Your task to perform on an android device: toggle notification dots Image 0: 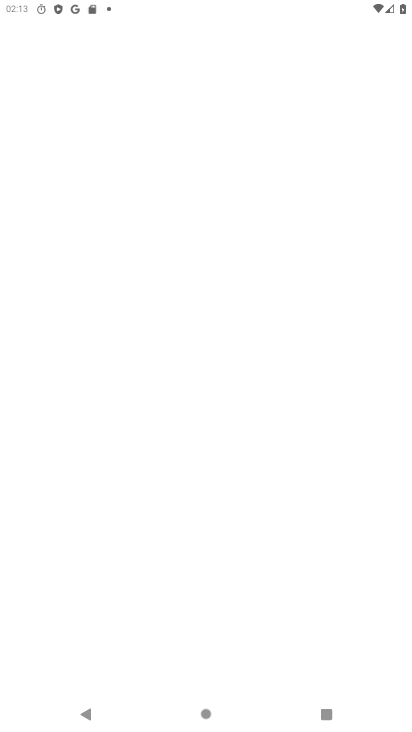
Step 0: drag from (196, 624) to (275, 77)
Your task to perform on an android device: toggle notification dots Image 1: 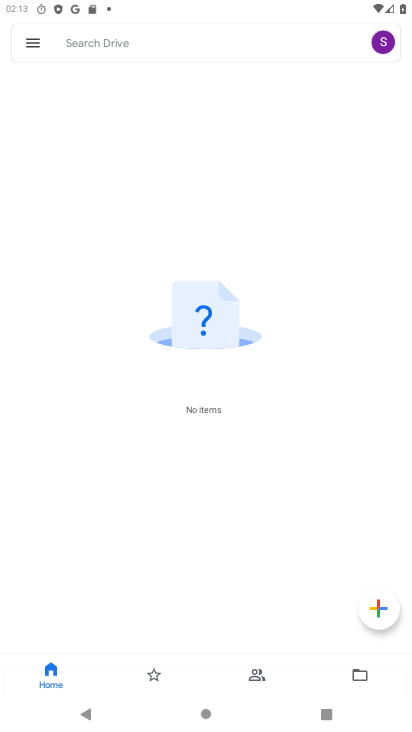
Step 1: press home button
Your task to perform on an android device: toggle notification dots Image 2: 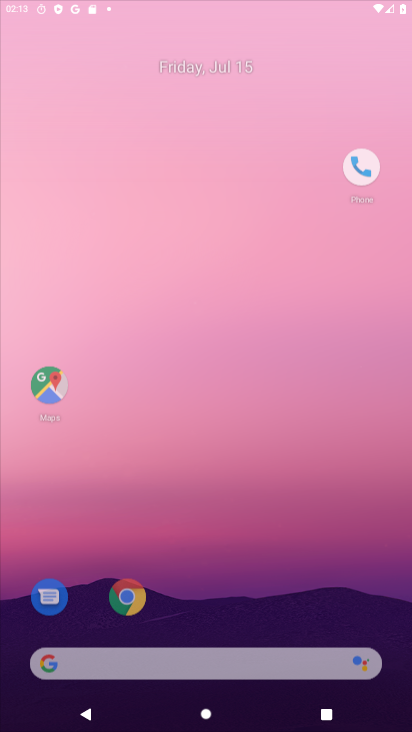
Step 2: drag from (168, 595) to (272, 159)
Your task to perform on an android device: toggle notification dots Image 3: 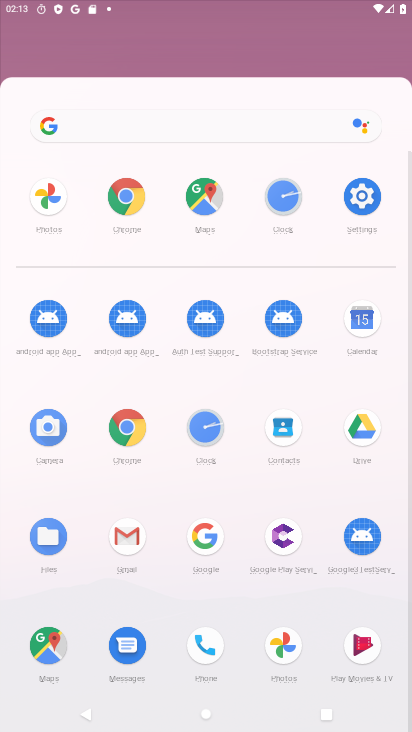
Step 3: drag from (212, 616) to (293, 123)
Your task to perform on an android device: toggle notification dots Image 4: 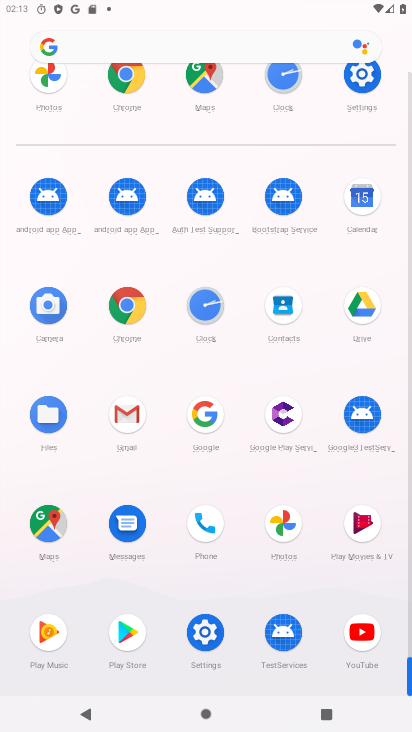
Step 4: click (202, 635)
Your task to perform on an android device: toggle notification dots Image 5: 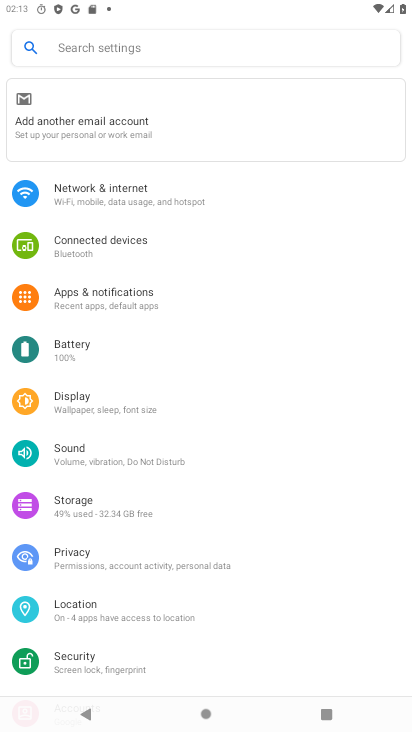
Step 5: click (140, 299)
Your task to perform on an android device: toggle notification dots Image 6: 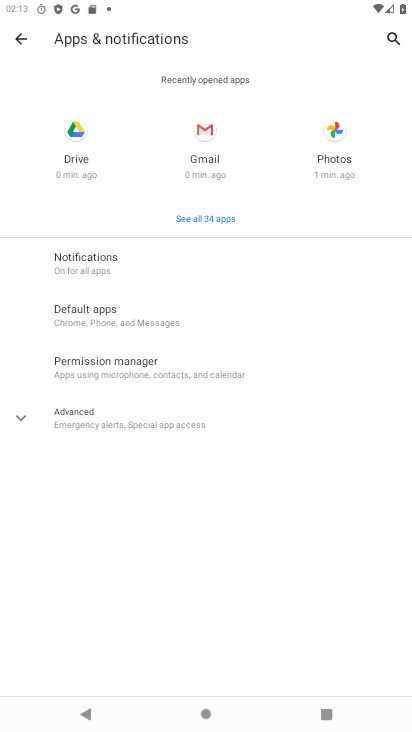
Step 6: drag from (184, 530) to (207, 298)
Your task to perform on an android device: toggle notification dots Image 7: 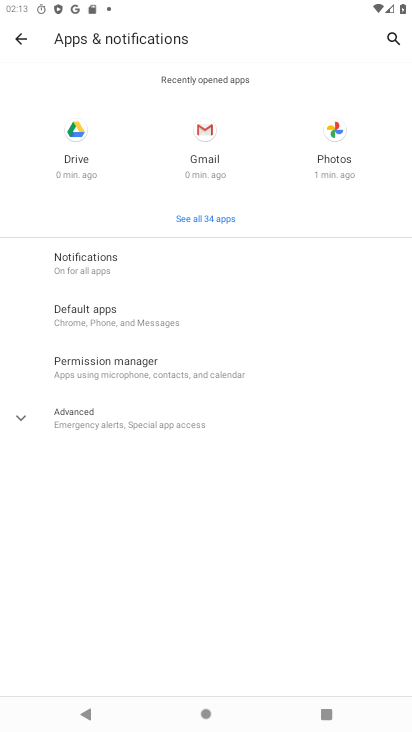
Step 7: click (128, 428)
Your task to perform on an android device: toggle notification dots Image 8: 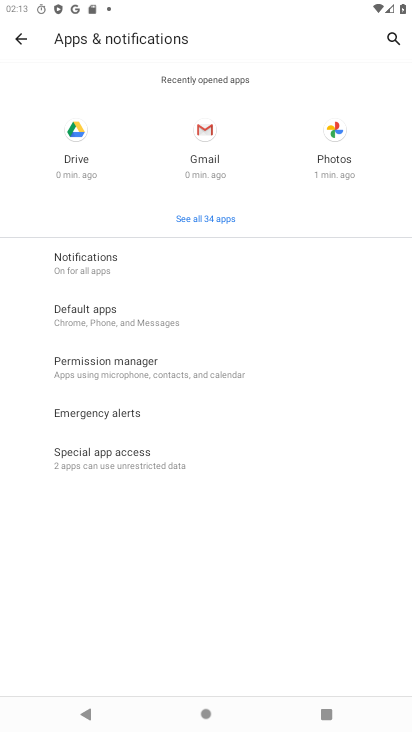
Step 8: click (136, 461)
Your task to perform on an android device: toggle notification dots Image 9: 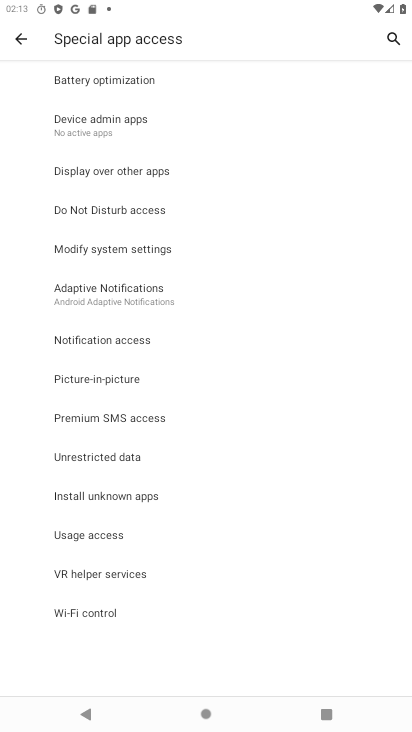
Step 9: click (20, 40)
Your task to perform on an android device: toggle notification dots Image 10: 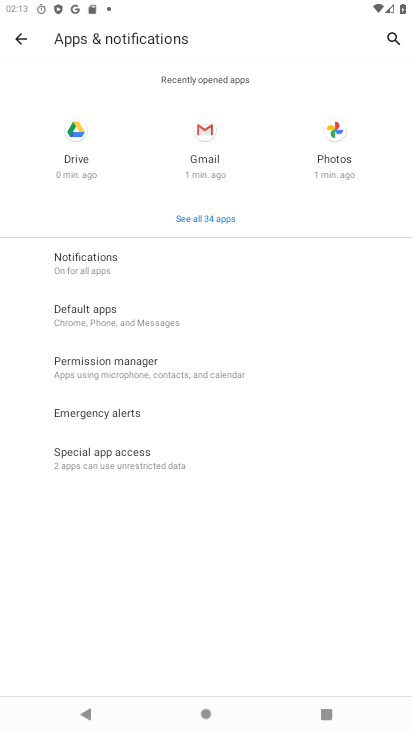
Step 10: click (113, 257)
Your task to perform on an android device: toggle notification dots Image 11: 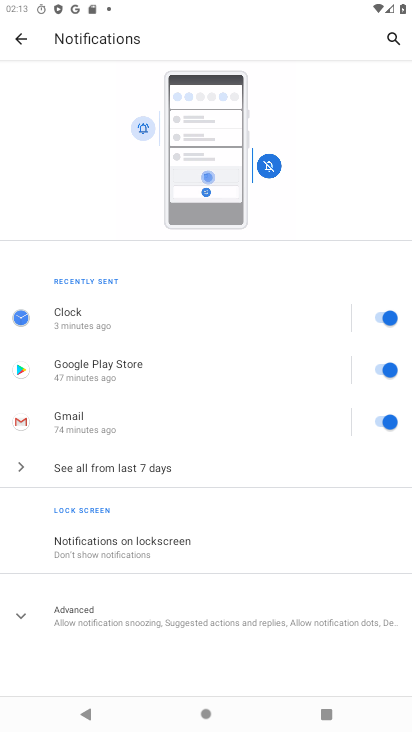
Step 11: drag from (179, 510) to (197, 300)
Your task to perform on an android device: toggle notification dots Image 12: 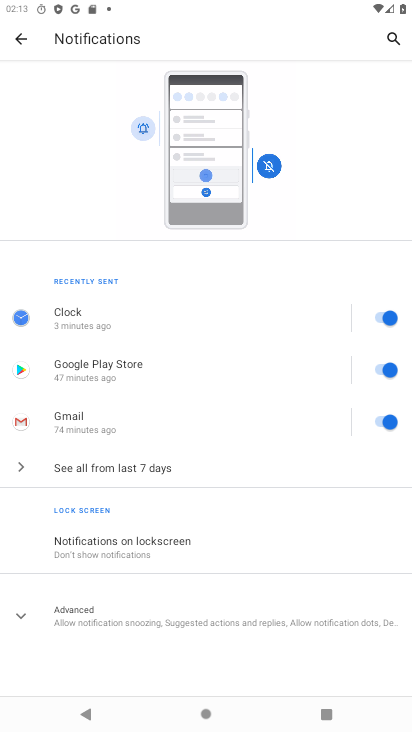
Step 12: click (150, 605)
Your task to perform on an android device: toggle notification dots Image 13: 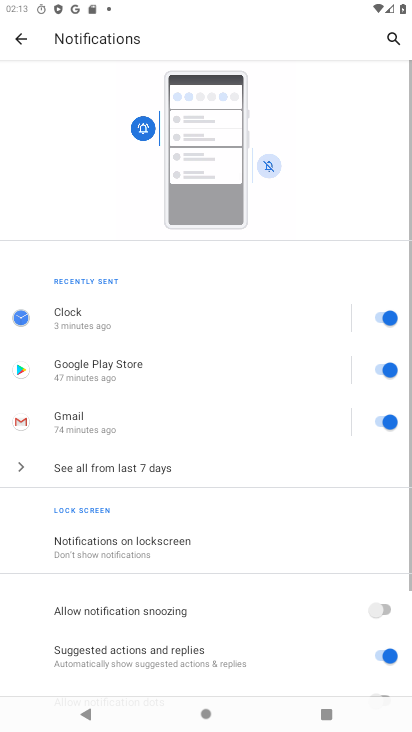
Step 13: drag from (164, 551) to (263, 308)
Your task to perform on an android device: toggle notification dots Image 14: 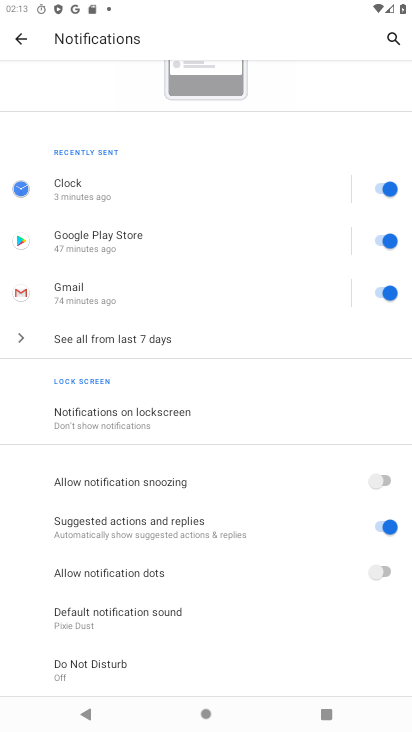
Step 14: click (224, 576)
Your task to perform on an android device: toggle notification dots Image 15: 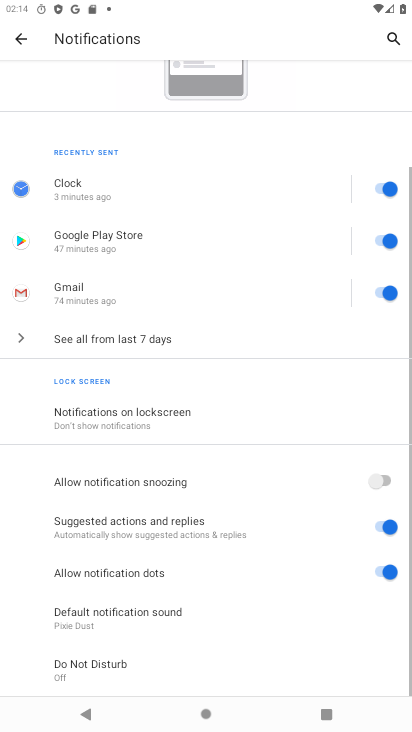
Step 15: task complete